Your task to perform on an android device: change alarm snooze length Image 0: 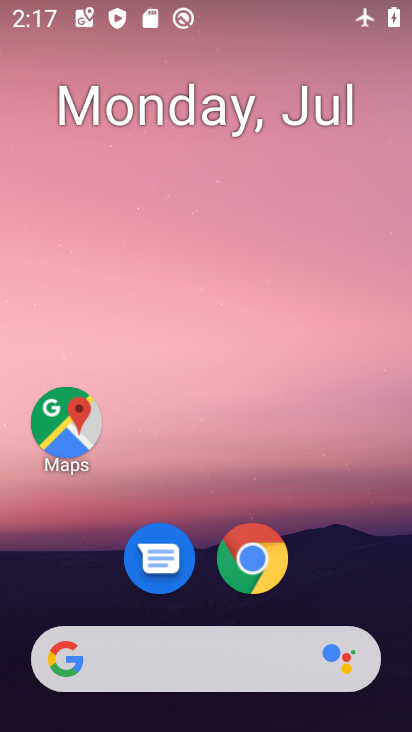
Step 0: press home button
Your task to perform on an android device: change alarm snooze length Image 1: 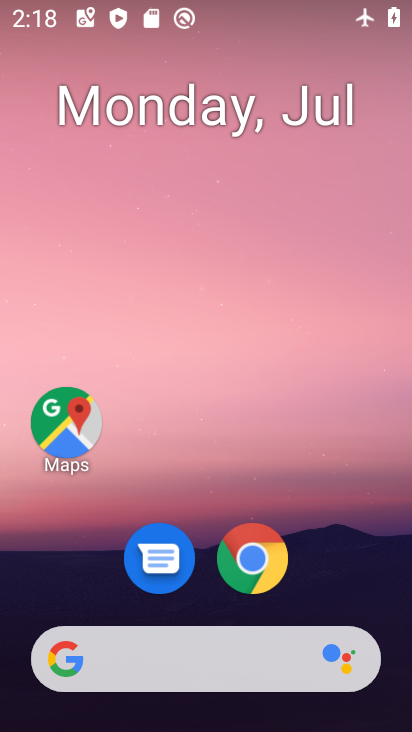
Step 1: drag from (360, 535) to (354, 72)
Your task to perform on an android device: change alarm snooze length Image 2: 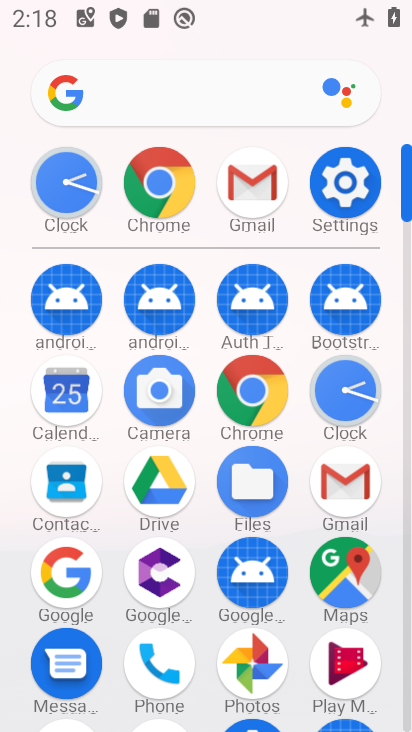
Step 2: click (345, 402)
Your task to perform on an android device: change alarm snooze length Image 3: 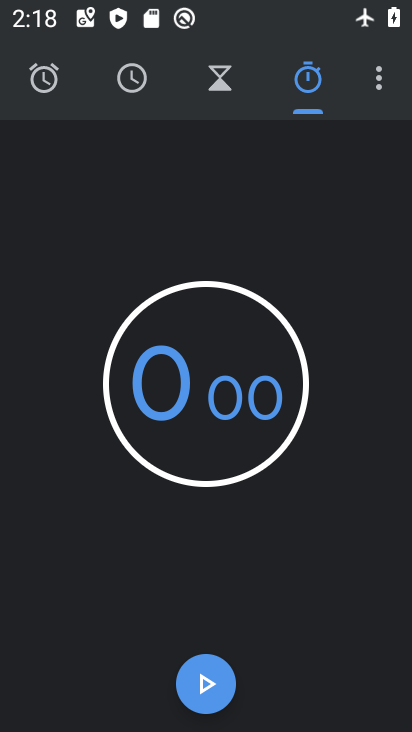
Step 3: click (380, 88)
Your task to perform on an android device: change alarm snooze length Image 4: 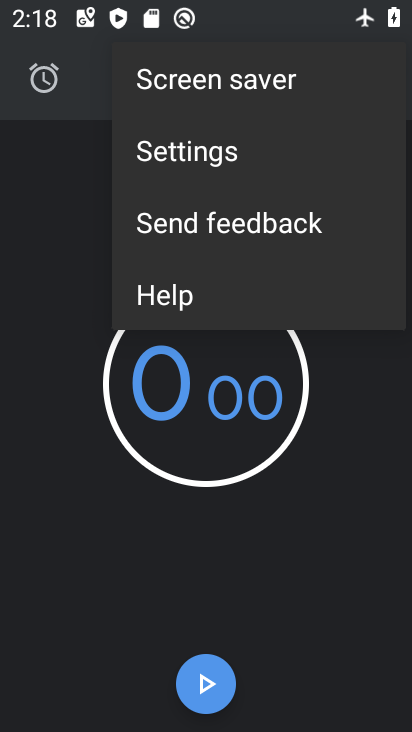
Step 4: click (258, 161)
Your task to perform on an android device: change alarm snooze length Image 5: 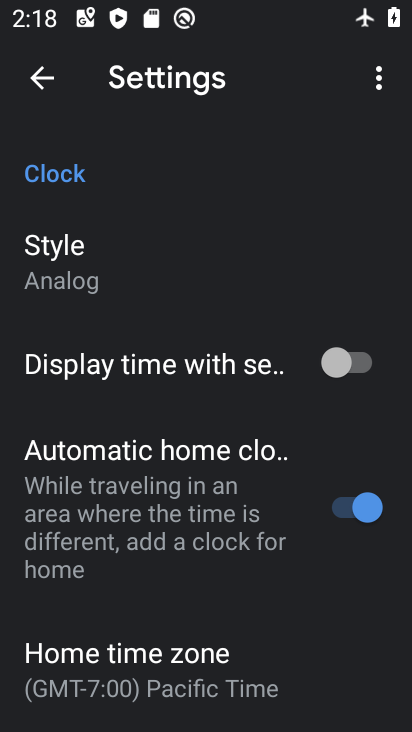
Step 5: drag from (276, 562) to (270, 339)
Your task to perform on an android device: change alarm snooze length Image 6: 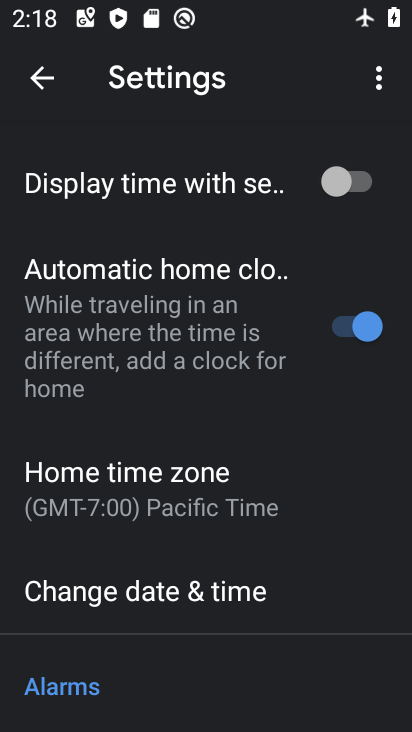
Step 6: drag from (323, 557) to (305, 188)
Your task to perform on an android device: change alarm snooze length Image 7: 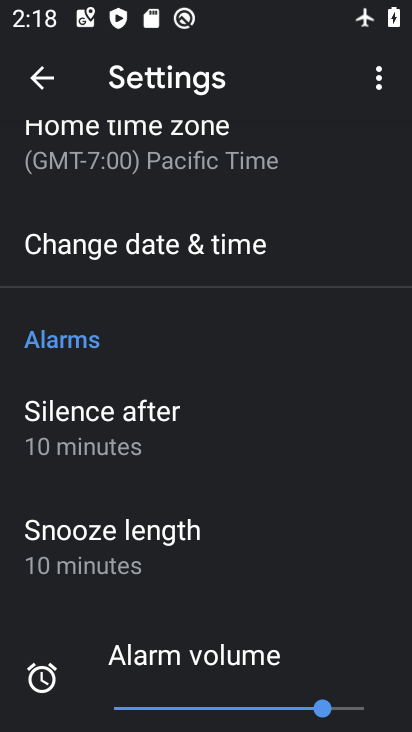
Step 7: drag from (310, 524) to (315, 249)
Your task to perform on an android device: change alarm snooze length Image 8: 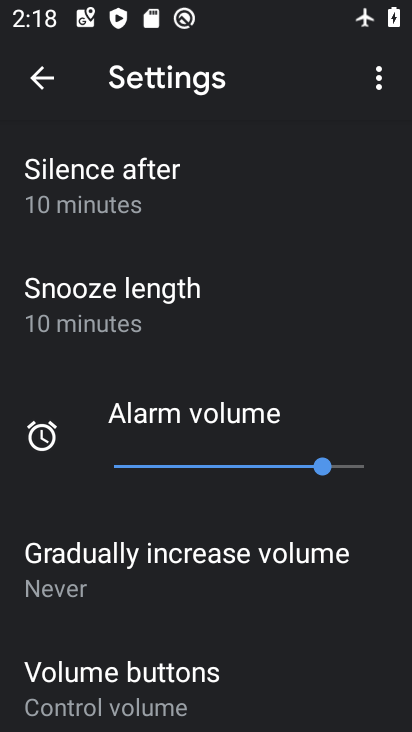
Step 8: drag from (273, 572) to (281, 374)
Your task to perform on an android device: change alarm snooze length Image 9: 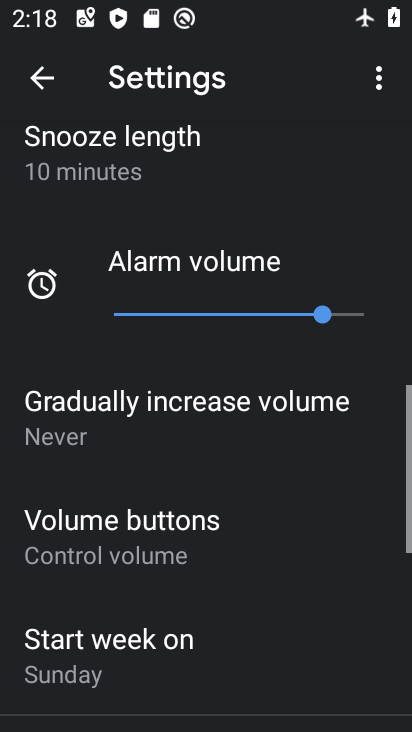
Step 9: drag from (288, 591) to (294, 476)
Your task to perform on an android device: change alarm snooze length Image 10: 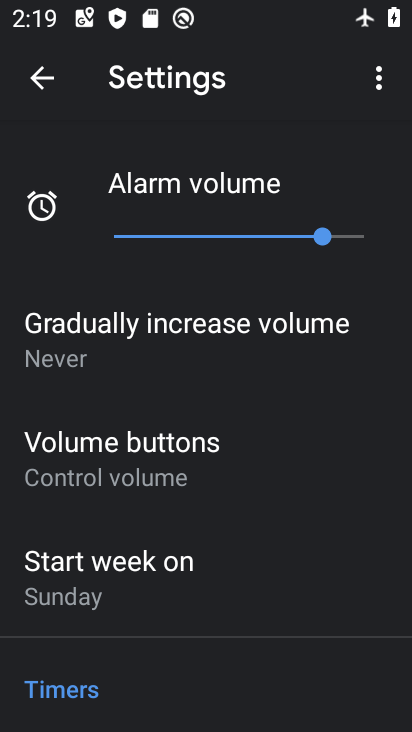
Step 10: drag from (308, 361) to (291, 551)
Your task to perform on an android device: change alarm snooze length Image 11: 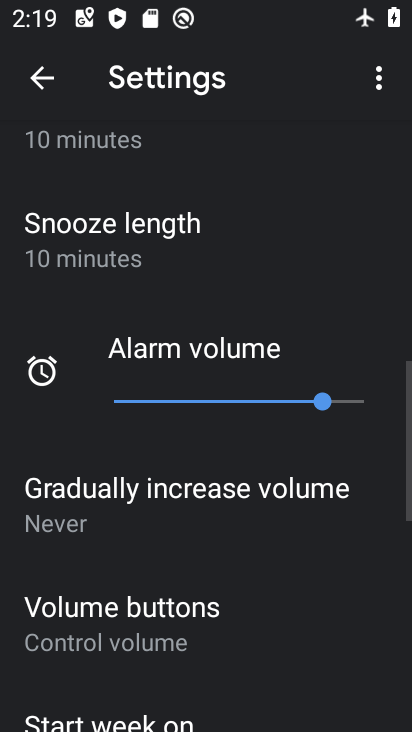
Step 11: click (218, 264)
Your task to perform on an android device: change alarm snooze length Image 12: 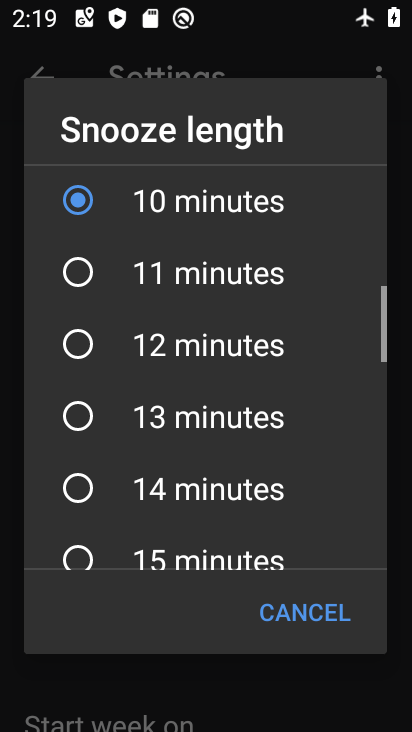
Step 12: click (225, 363)
Your task to perform on an android device: change alarm snooze length Image 13: 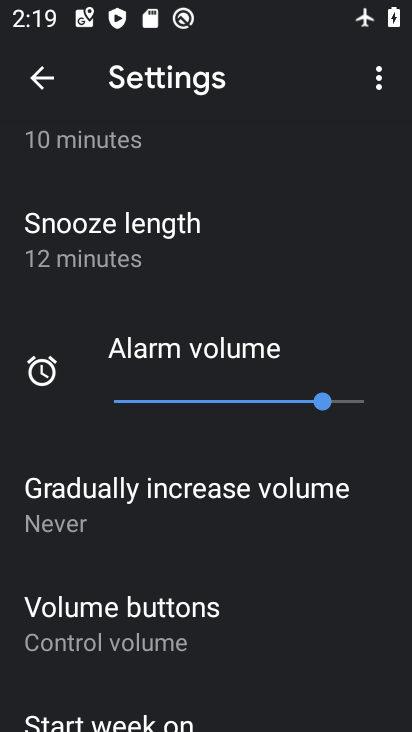
Step 13: task complete